Your task to perform on an android device: turn on sleep mode Image 0: 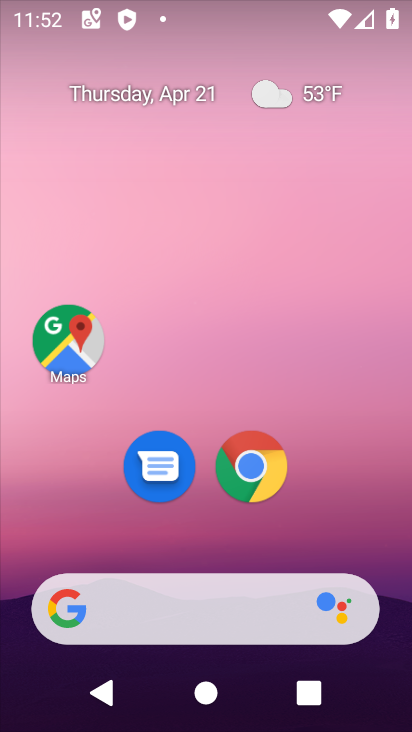
Step 0: drag from (382, 516) to (278, 37)
Your task to perform on an android device: turn on sleep mode Image 1: 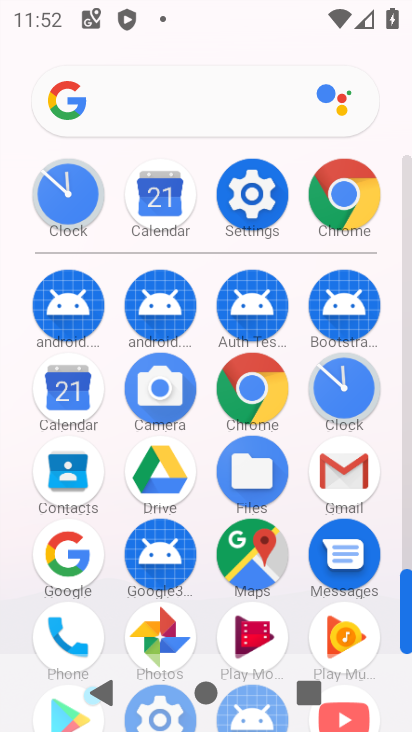
Step 1: drag from (7, 562) to (22, 304)
Your task to perform on an android device: turn on sleep mode Image 2: 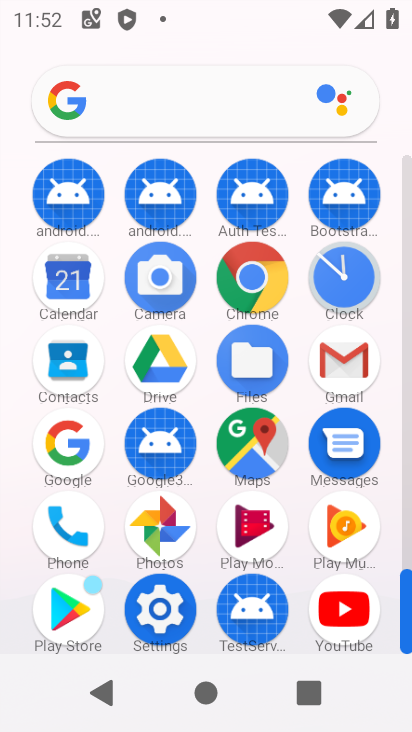
Step 2: click (148, 606)
Your task to perform on an android device: turn on sleep mode Image 3: 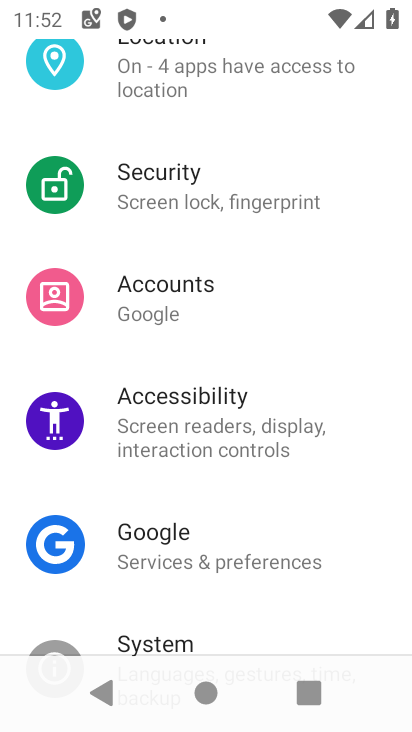
Step 3: drag from (337, 581) to (313, 261)
Your task to perform on an android device: turn on sleep mode Image 4: 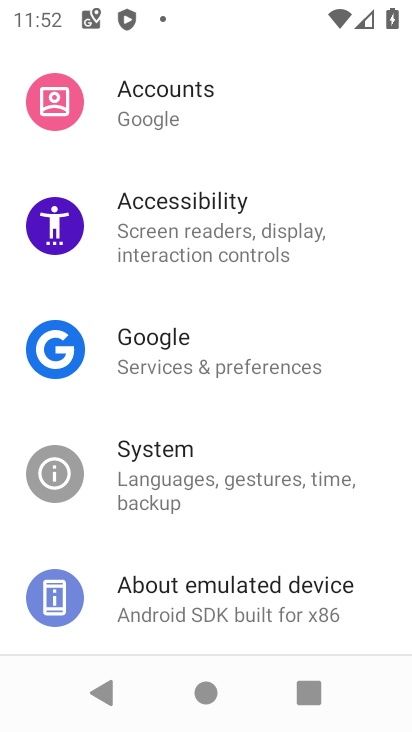
Step 4: drag from (248, 158) to (245, 584)
Your task to perform on an android device: turn on sleep mode Image 5: 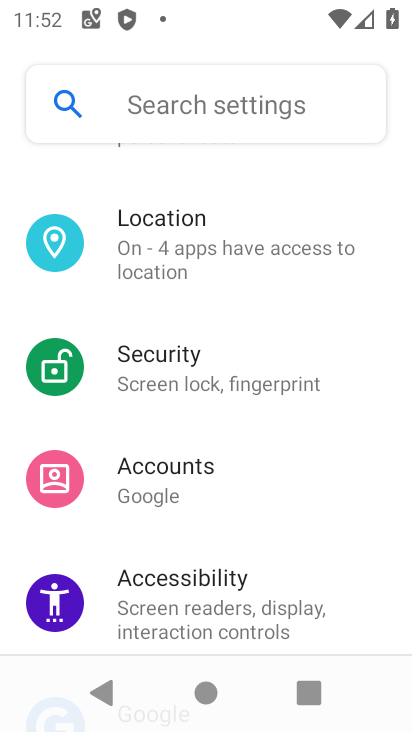
Step 5: drag from (261, 290) to (267, 618)
Your task to perform on an android device: turn on sleep mode Image 6: 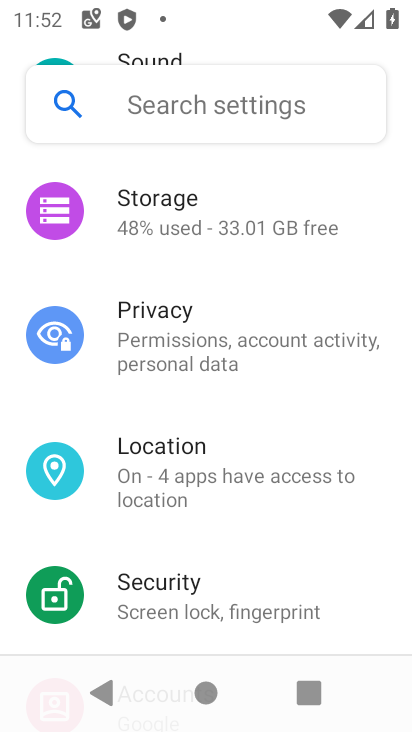
Step 6: drag from (247, 251) to (256, 567)
Your task to perform on an android device: turn on sleep mode Image 7: 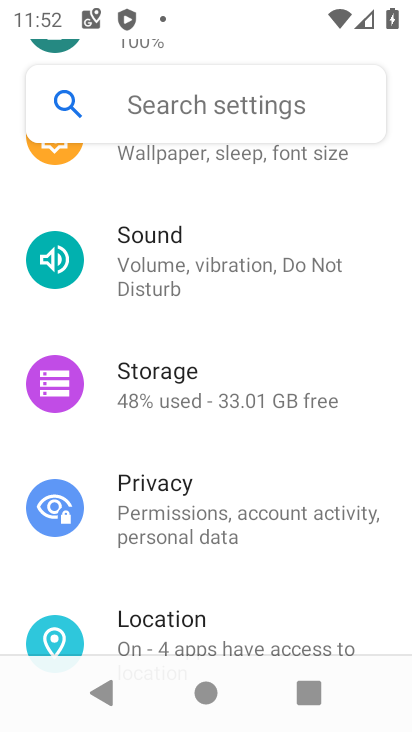
Step 7: click (255, 158)
Your task to perform on an android device: turn on sleep mode Image 8: 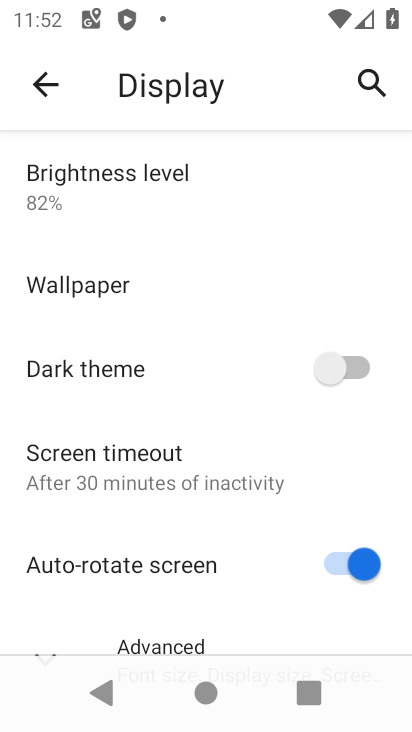
Step 8: drag from (180, 498) to (176, 268)
Your task to perform on an android device: turn on sleep mode Image 9: 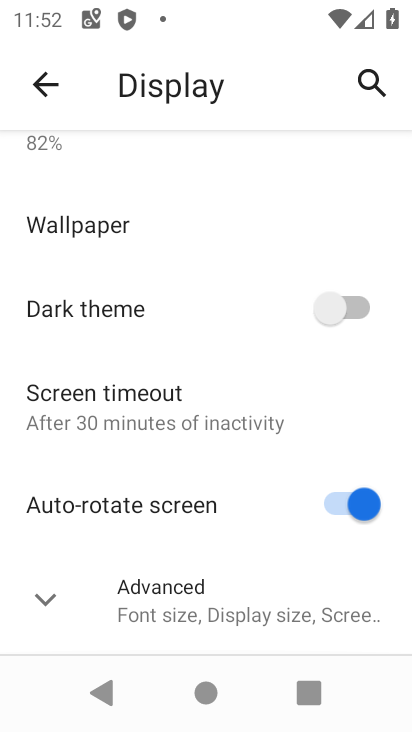
Step 9: click (146, 578)
Your task to perform on an android device: turn on sleep mode Image 10: 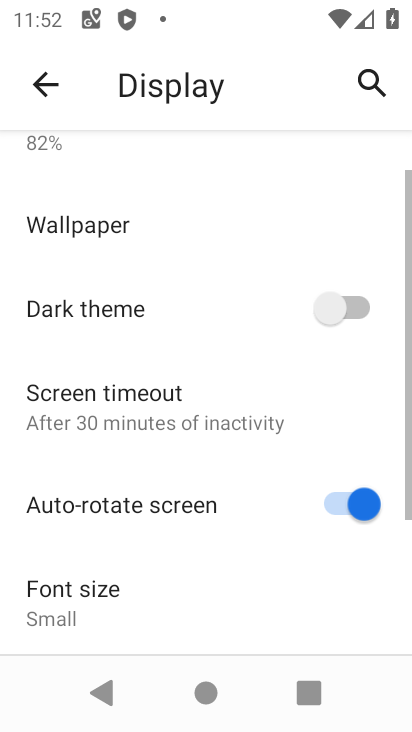
Step 10: task complete